Your task to perform on an android device: open wifi settings Image 0: 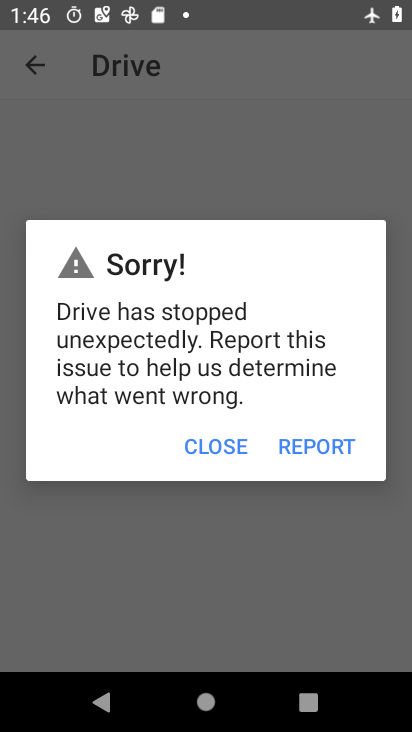
Step 0: press home button
Your task to perform on an android device: open wifi settings Image 1: 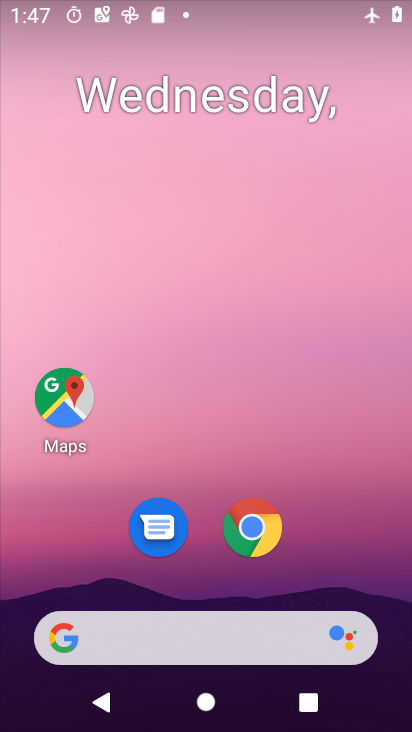
Step 1: drag from (336, 633) to (357, 33)
Your task to perform on an android device: open wifi settings Image 2: 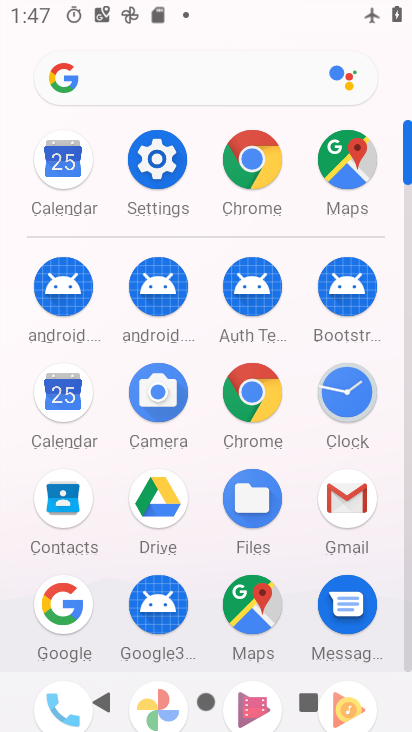
Step 2: click (163, 165)
Your task to perform on an android device: open wifi settings Image 3: 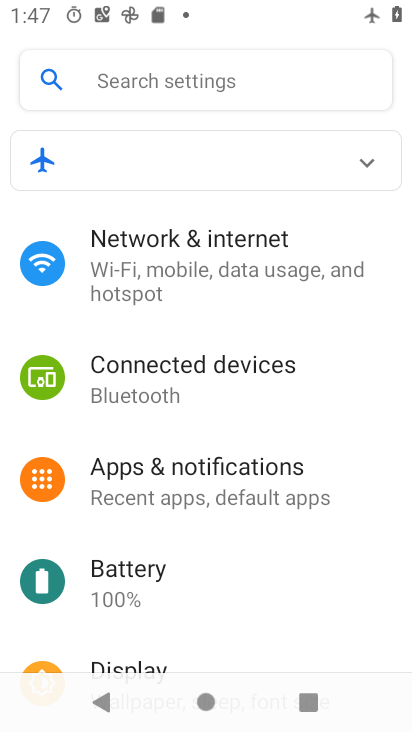
Step 3: drag from (295, 624) to (351, 720)
Your task to perform on an android device: open wifi settings Image 4: 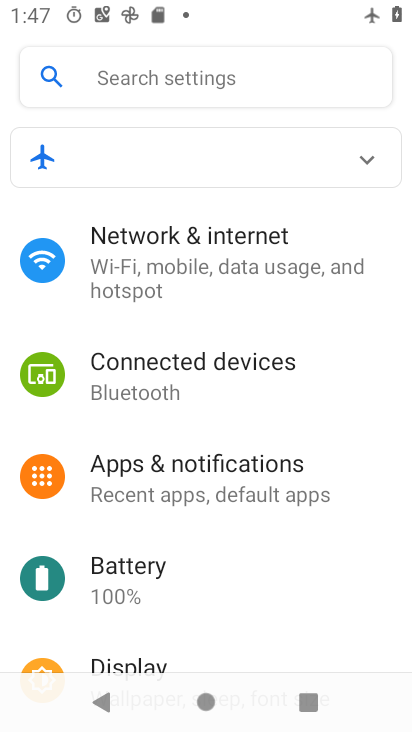
Step 4: click (264, 268)
Your task to perform on an android device: open wifi settings Image 5: 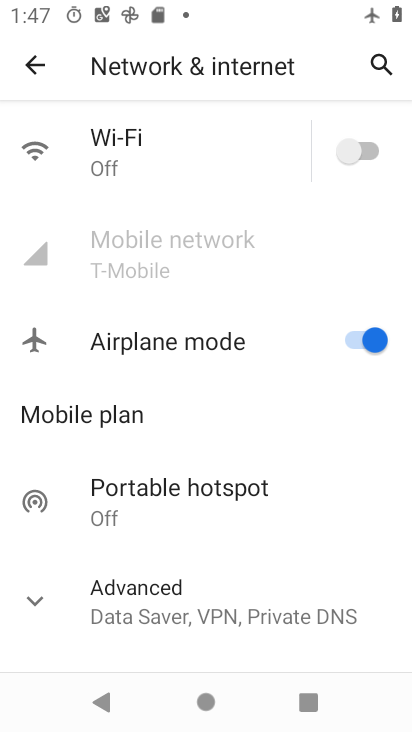
Step 5: click (140, 122)
Your task to perform on an android device: open wifi settings Image 6: 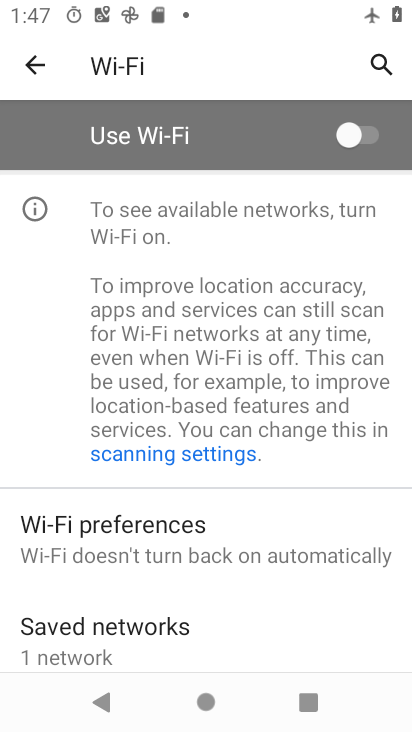
Step 6: task complete